Your task to perform on an android device: Go to notification settings Image 0: 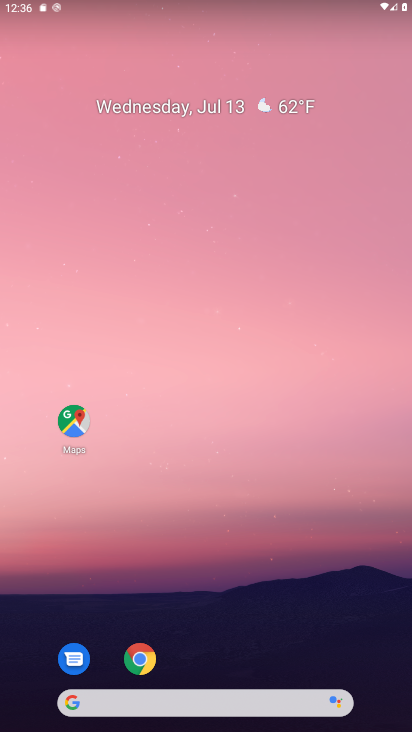
Step 0: click (206, 195)
Your task to perform on an android device: Go to notification settings Image 1: 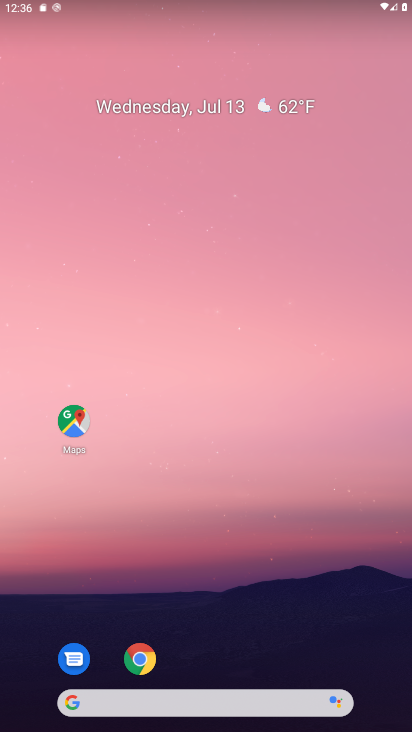
Step 1: drag from (283, 154) to (247, 0)
Your task to perform on an android device: Go to notification settings Image 2: 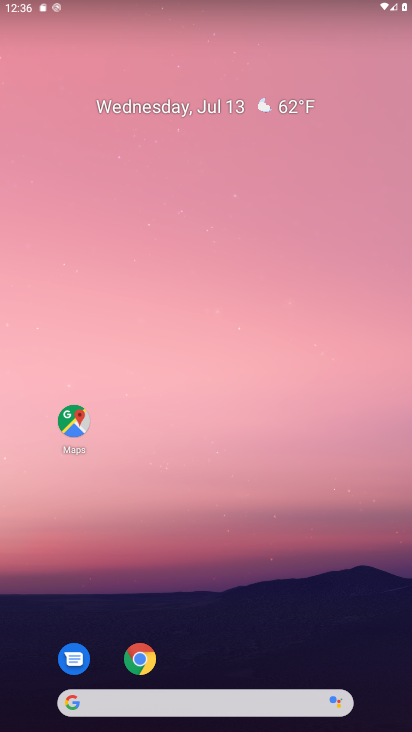
Step 2: drag from (275, 357) to (262, 172)
Your task to perform on an android device: Go to notification settings Image 3: 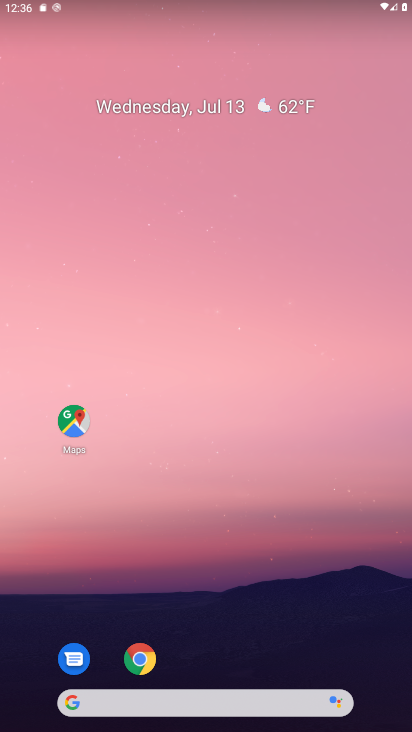
Step 3: drag from (236, 706) to (95, 230)
Your task to perform on an android device: Go to notification settings Image 4: 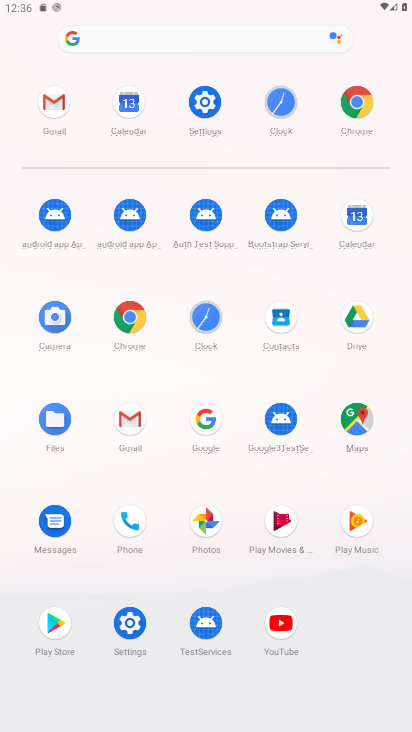
Step 4: click (134, 628)
Your task to perform on an android device: Go to notification settings Image 5: 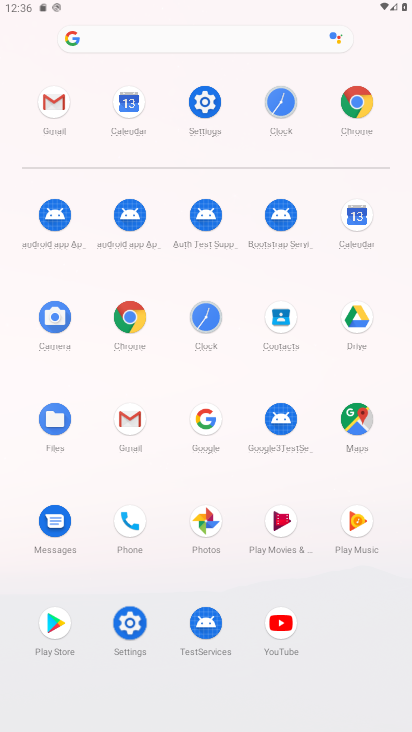
Step 5: click (133, 625)
Your task to perform on an android device: Go to notification settings Image 6: 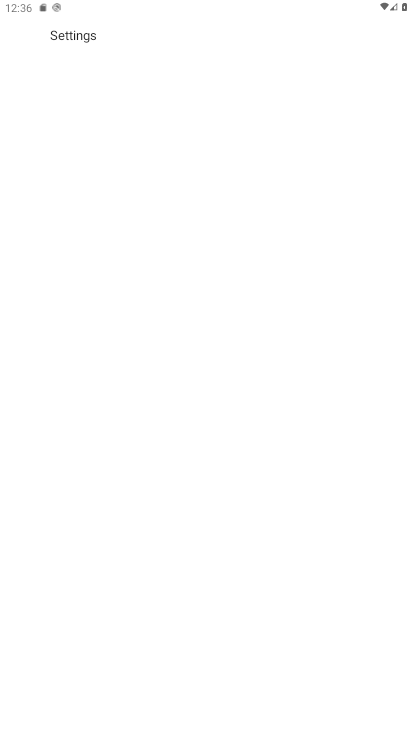
Step 6: click (133, 624)
Your task to perform on an android device: Go to notification settings Image 7: 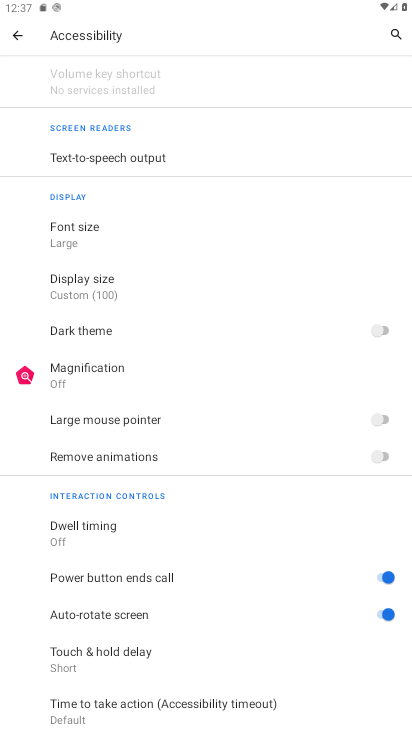
Step 7: click (11, 36)
Your task to perform on an android device: Go to notification settings Image 8: 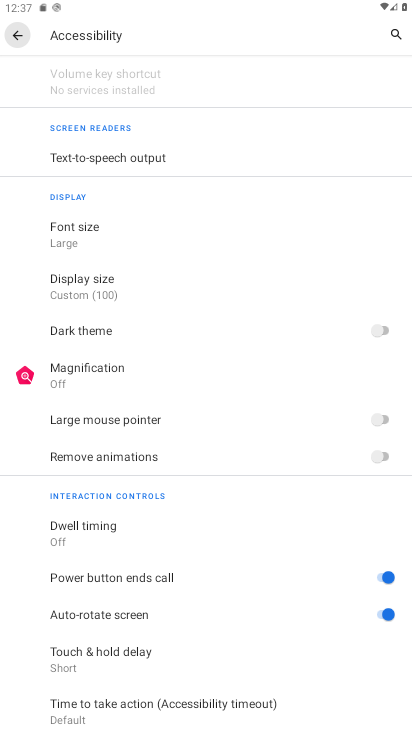
Step 8: click (14, 34)
Your task to perform on an android device: Go to notification settings Image 9: 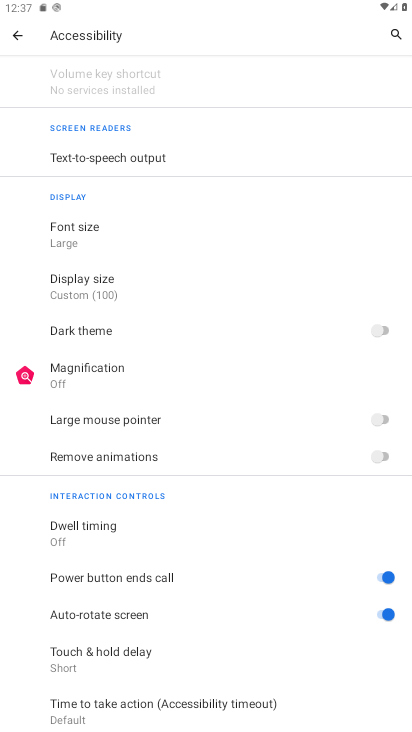
Step 9: click (14, 34)
Your task to perform on an android device: Go to notification settings Image 10: 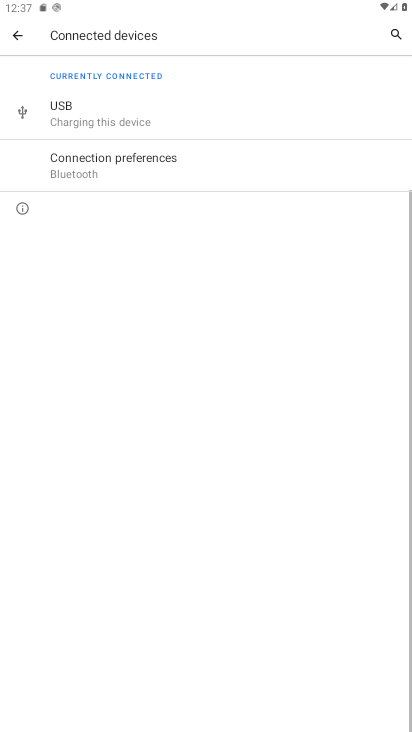
Step 10: click (95, 81)
Your task to perform on an android device: Go to notification settings Image 11: 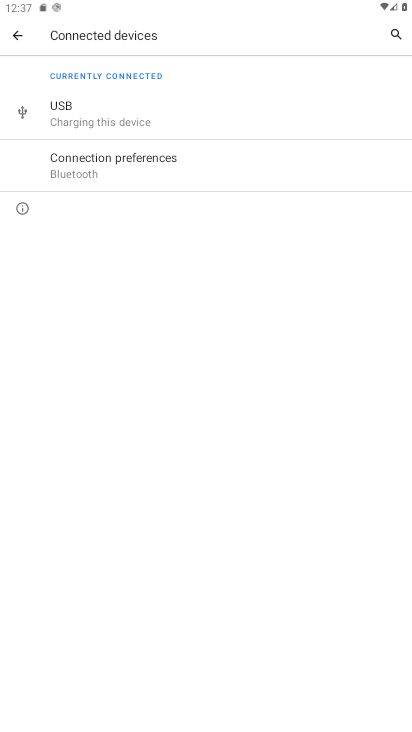
Step 11: click (7, 22)
Your task to perform on an android device: Go to notification settings Image 12: 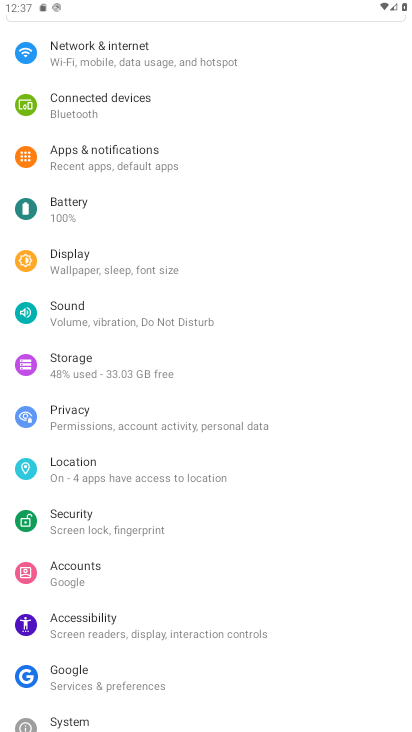
Step 12: click (103, 96)
Your task to perform on an android device: Go to notification settings Image 13: 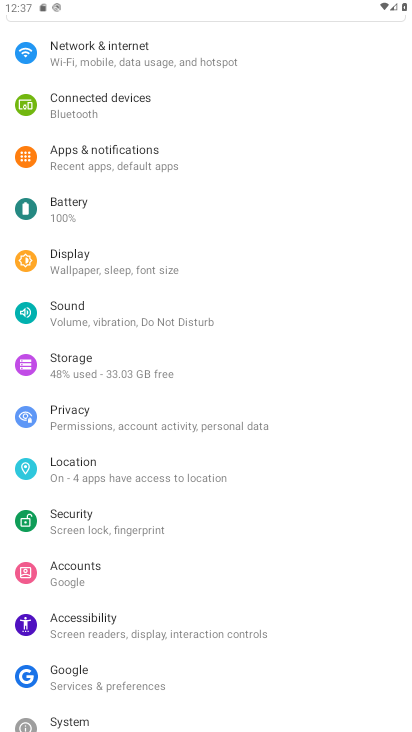
Step 13: click (94, 148)
Your task to perform on an android device: Go to notification settings Image 14: 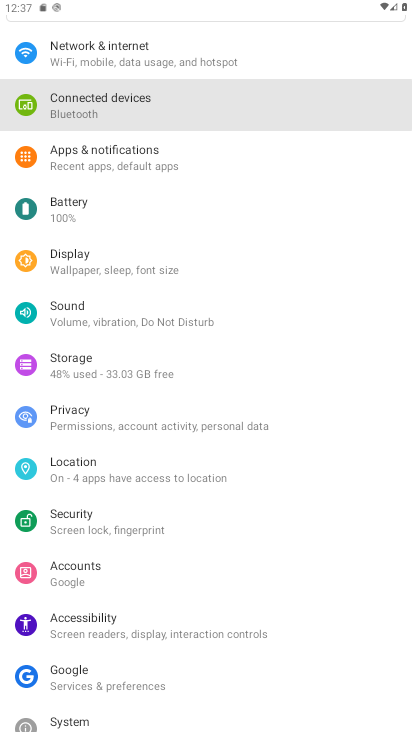
Step 14: click (101, 156)
Your task to perform on an android device: Go to notification settings Image 15: 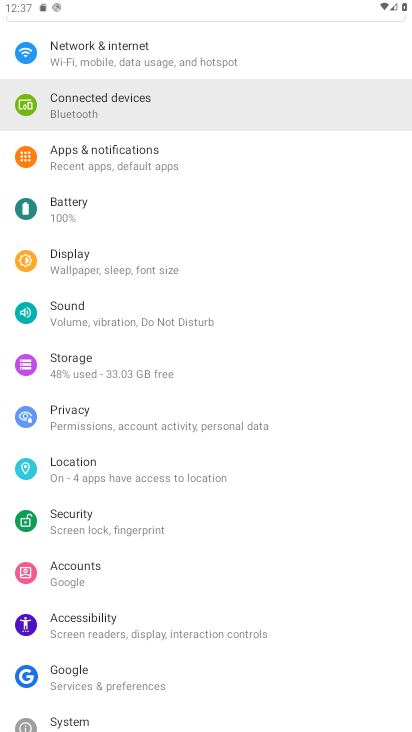
Step 15: drag from (101, 155) to (130, 178)
Your task to perform on an android device: Go to notification settings Image 16: 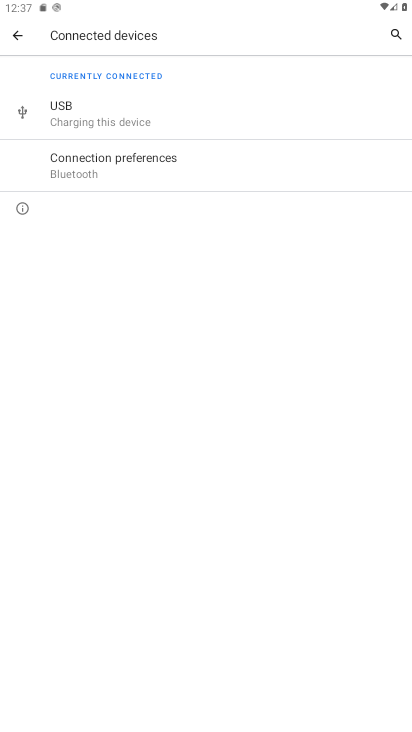
Step 16: click (15, 33)
Your task to perform on an android device: Go to notification settings Image 17: 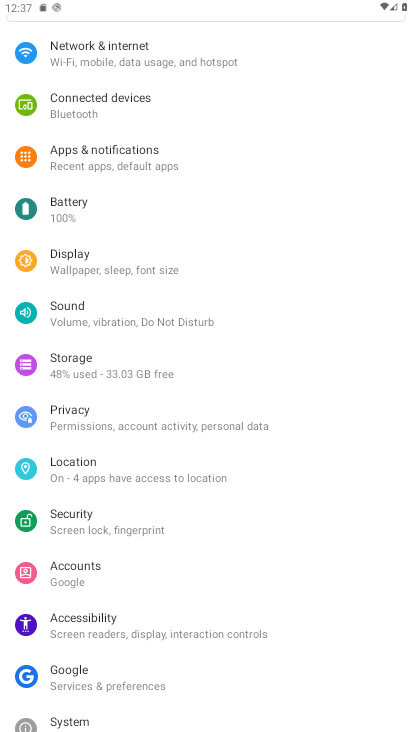
Step 17: click (133, 154)
Your task to perform on an android device: Go to notification settings Image 18: 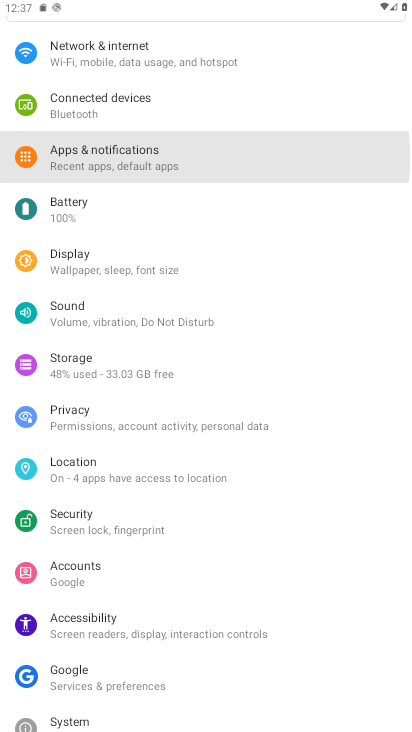
Step 18: click (133, 154)
Your task to perform on an android device: Go to notification settings Image 19: 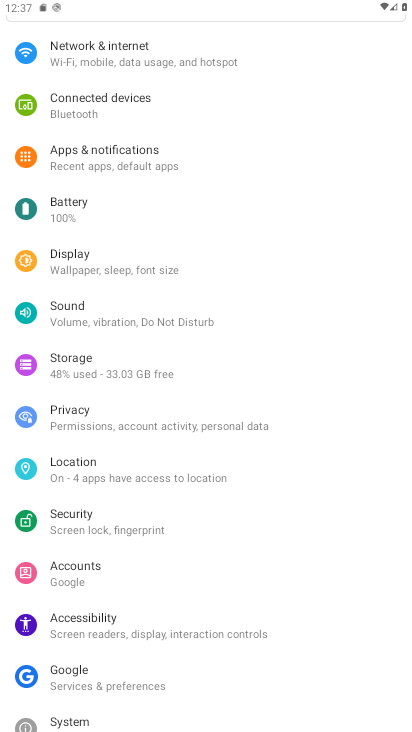
Step 19: click (133, 155)
Your task to perform on an android device: Go to notification settings Image 20: 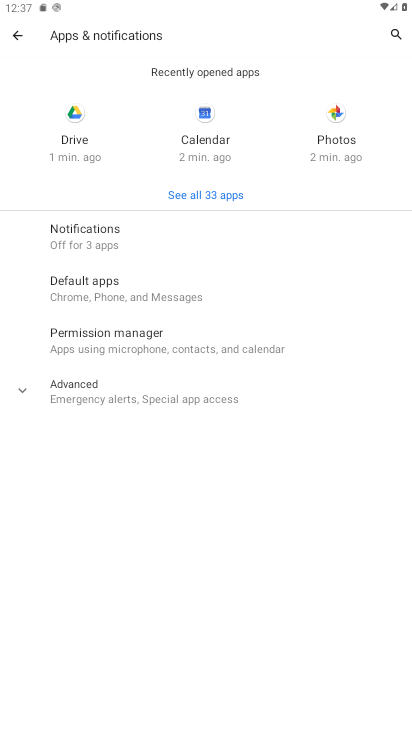
Step 20: task complete